Your task to perform on an android device: Go to notification settings Image 0: 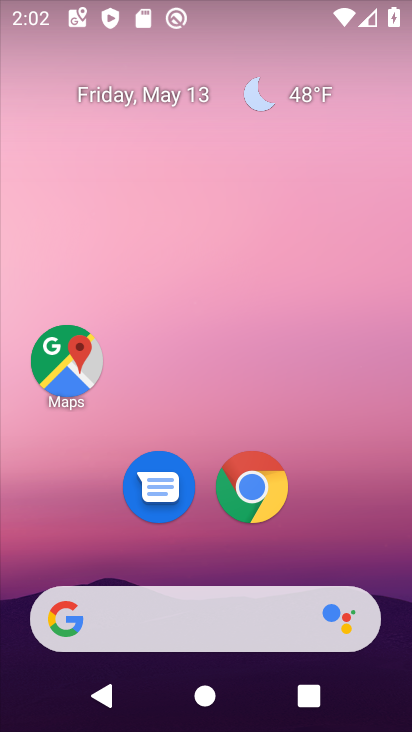
Step 0: drag from (140, 589) to (267, 155)
Your task to perform on an android device: Go to notification settings Image 1: 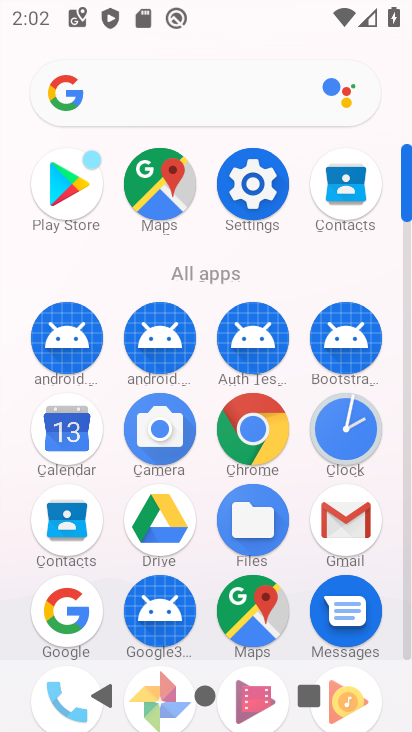
Step 1: drag from (167, 599) to (289, 252)
Your task to perform on an android device: Go to notification settings Image 2: 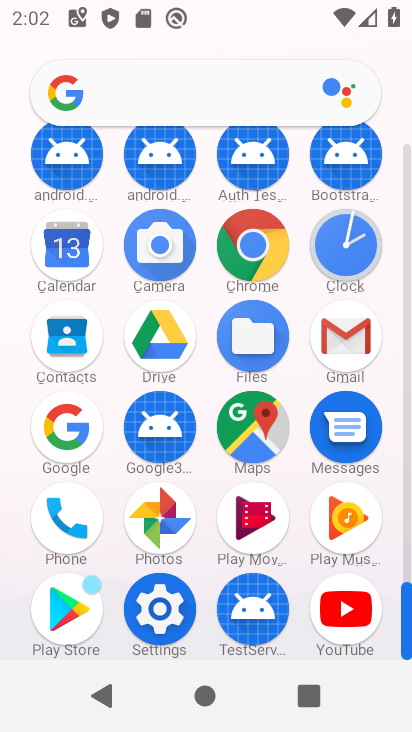
Step 2: click (171, 610)
Your task to perform on an android device: Go to notification settings Image 3: 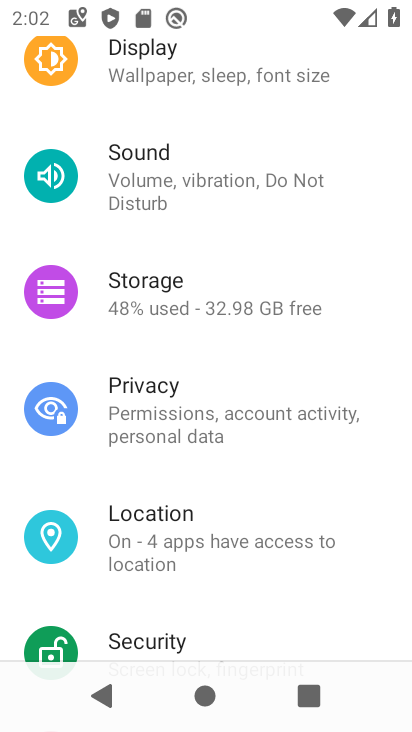
Step 3: drag from (217, 263) to (190, 568)
Your task to perform on an android device: Go to notification settings Image 4: 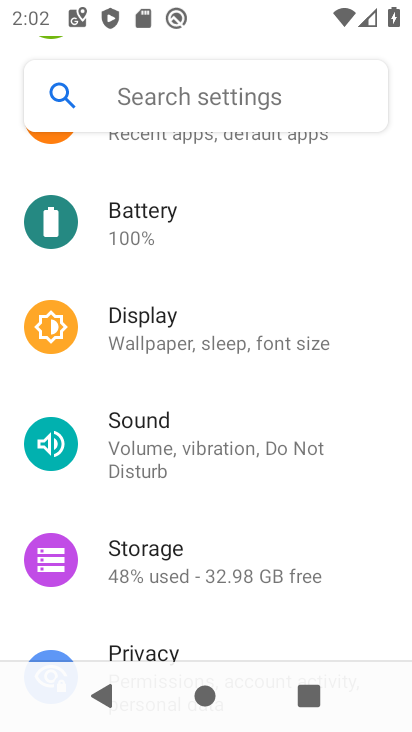
Step 4: drag from (216, 229) to (197, 512)
Your task to perform on an android device: Go to notification settings Image 5: 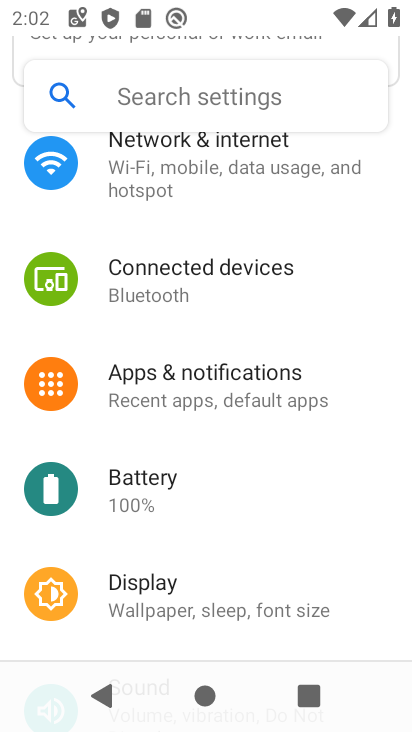
Step 5: click (272, 410)
Your task to perform on an android device: Go to notification settings Image 6: 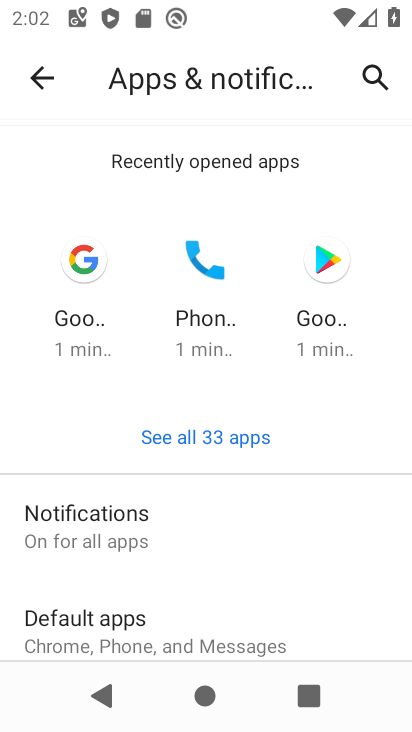
Step 6: click (231, 531)
Your task to perform on an android device: Go to notification settings Image 7: 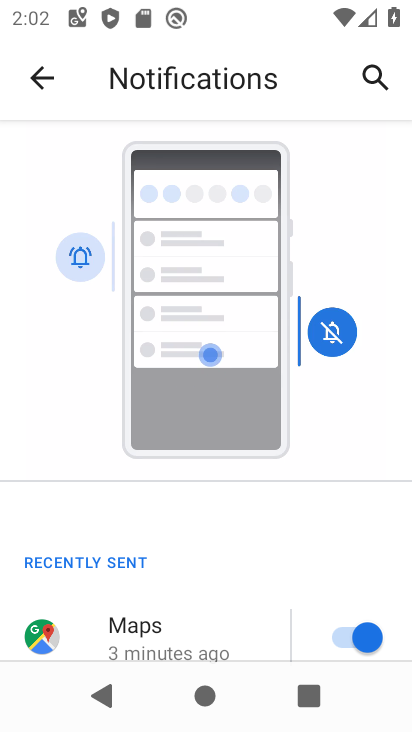
Step 7: task complete